Your task to perform on an android device: Go to settings Image 0: 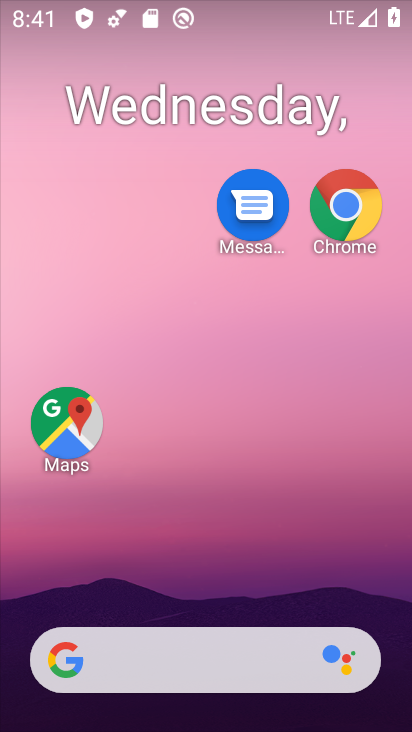
Step 0: drag from (186, 428) to (157, 14)
Your task to perform on an android device: Go to settings Image 1: 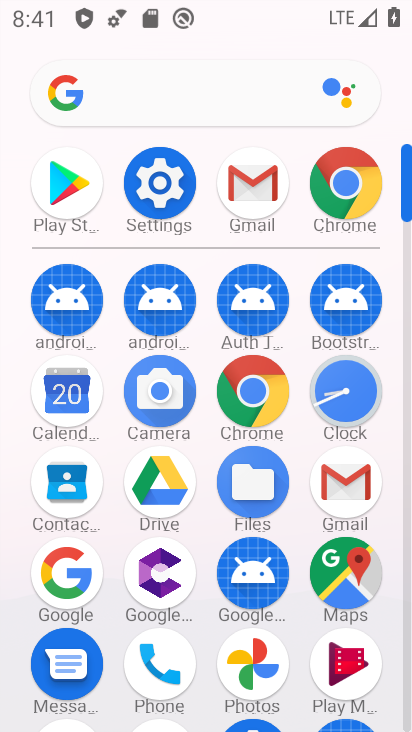
Step 1: click (150, 174)
Your task to perform on an android device: Go to settings Image 2: 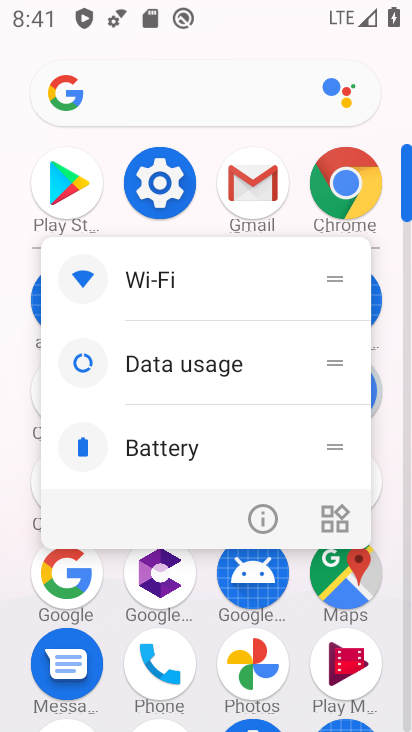
Step 2: click (273, 518)
Your task to perform on an android device: Go to settings Image 3: 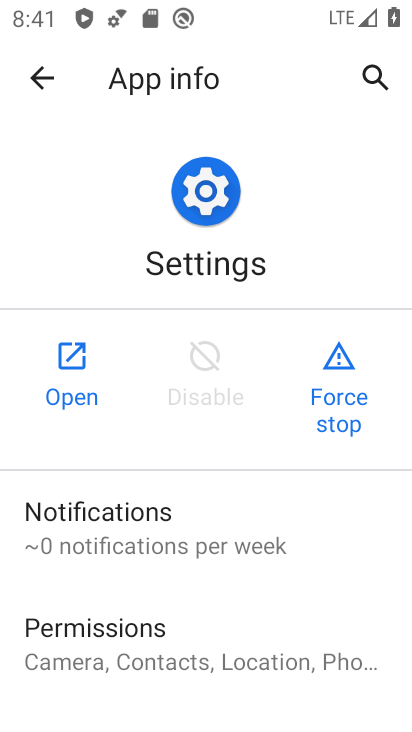
Step 3: click (52, 373)
Your task to perform on an android device: Go to settings Image 4: 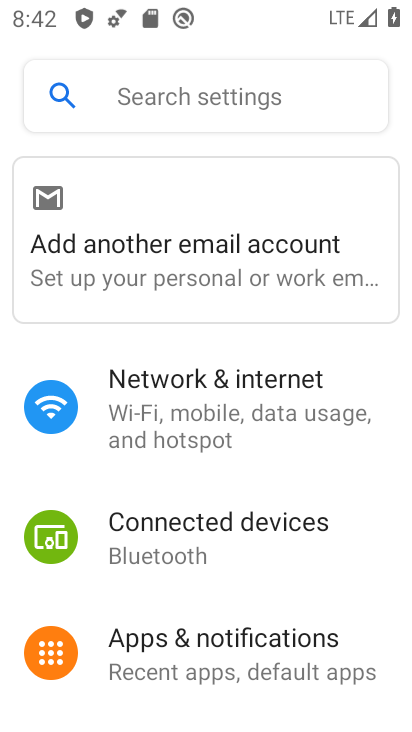
Step 4: task complete